Your task to perform on an android device: Open Wikipedia Image 0: 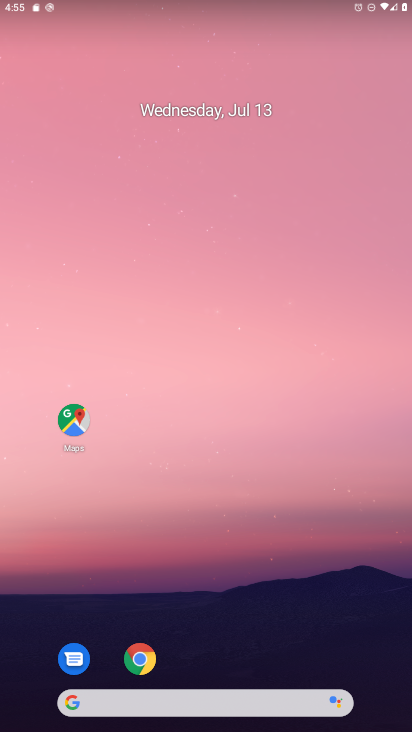
Step 0: drag from (309, 523) to (260, 151)
Your task to perform on an android device: Open Wikipedia Image 1: 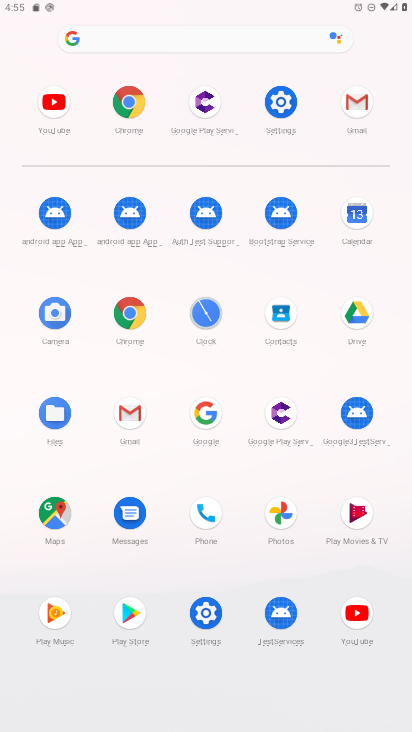
Step 1: click (136, 314)
Your task to perform on an android device: Open Wikipedia Image 2: 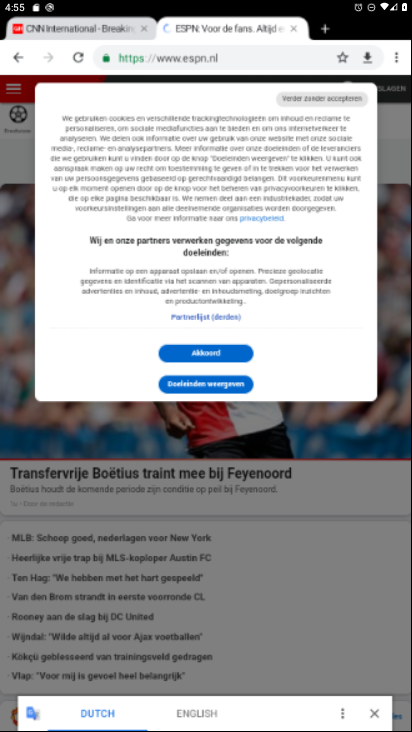
Step 2: click (238, 58)
Your task to perform on an android device: Open Wikipedia Image 3: 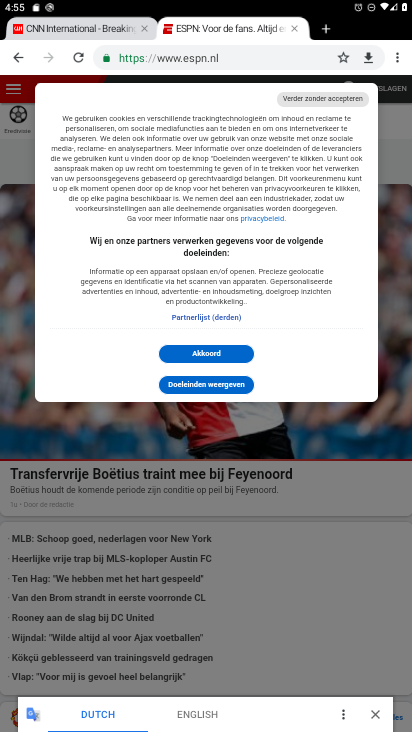
Step 3: click (261, 57)
Your task to perform on an android device: Open Wikipedia Image 4: 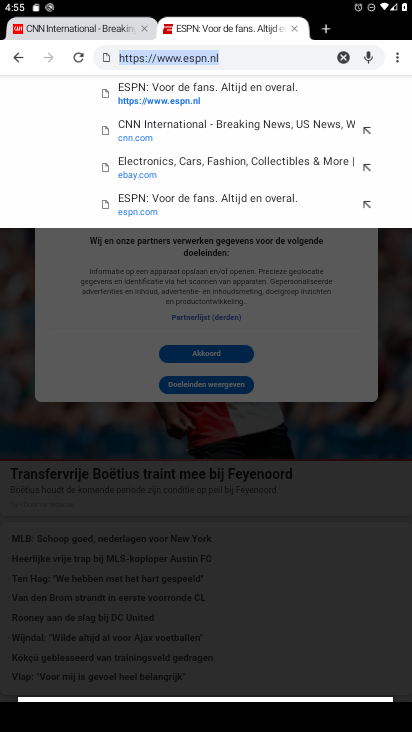
Step 4: type "wikipedia"
Your task to perform on an android device: Open Wikipedia Image 5: 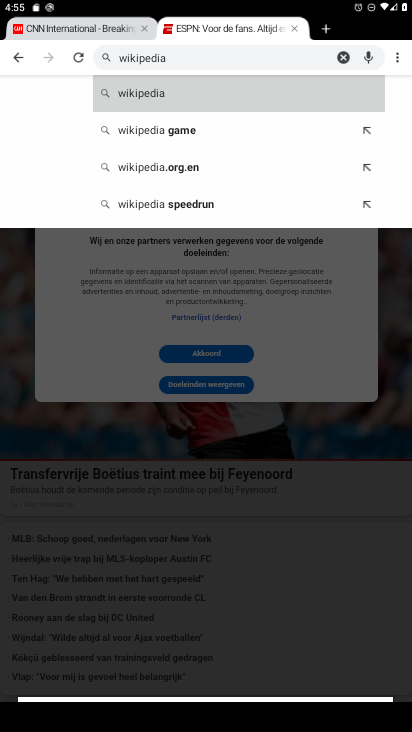
Step 5: click (148, 89)
Your task to perform on an android device: Open Wikipedia Image 6: 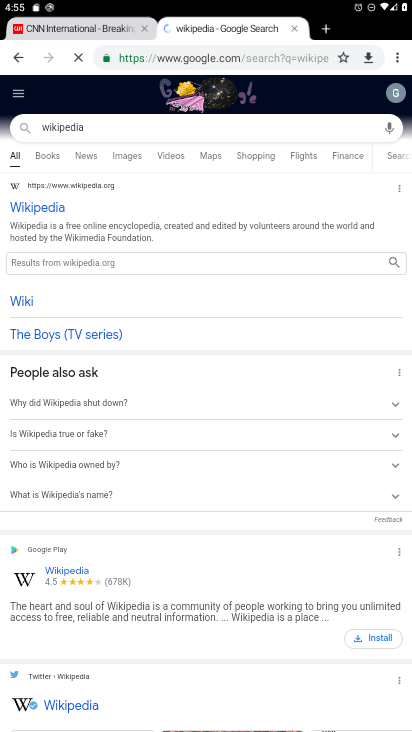
Step 6: click (60, 213)
Your task to perform on an android device: Open Wikipedia Image 7: 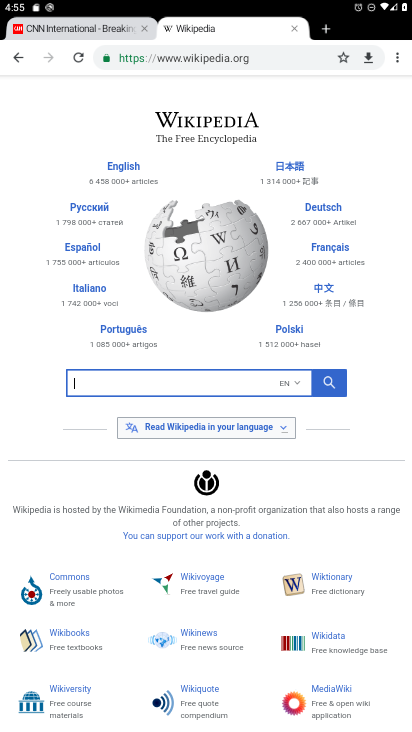
Step 7: task complete